Your task to perform on an android device: turn off wifi Image 0: 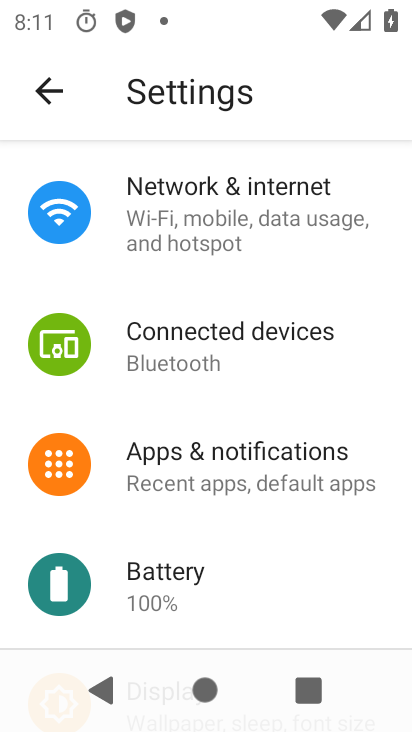
Step 0: click (203, 229)
Your task to perform on an android device: turn off wifi Image 1: 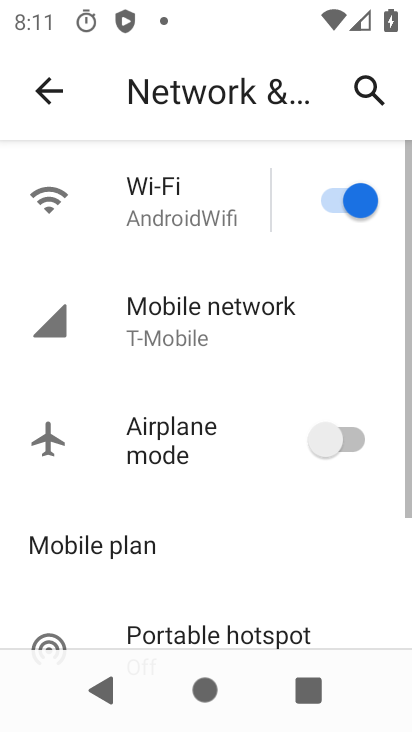
Step 1: click (375, 196)
Your task to perform on an android device: turn off wifi Image 2: 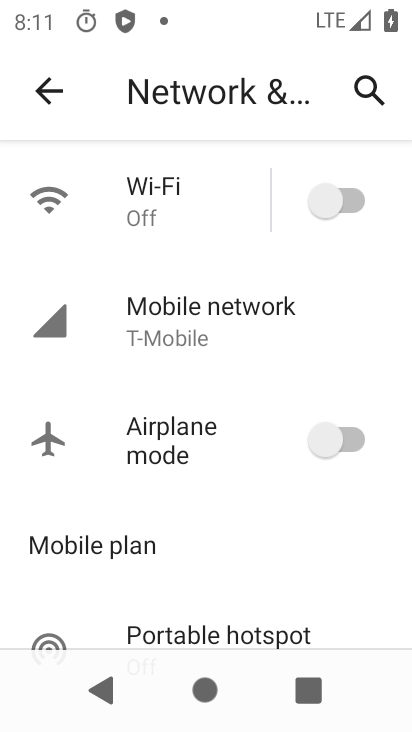
Step 2: task complete